Your task to perform on an android device: Go to privacy settings Image 0: 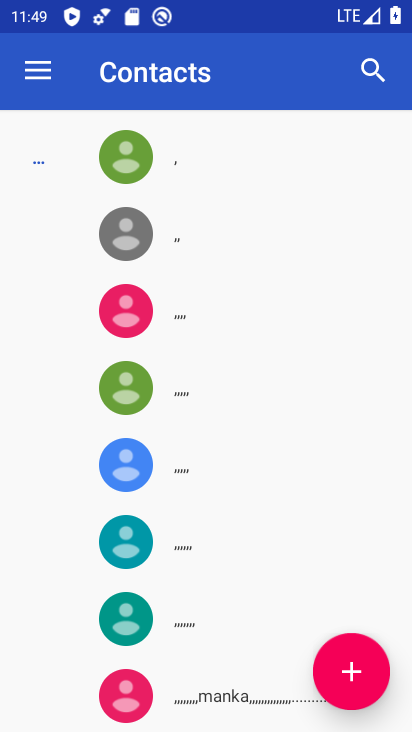
Step 0: drag from (217, 632) to (269, 260)
Your task to perform on an android device: Go to privacy settings Image 1: 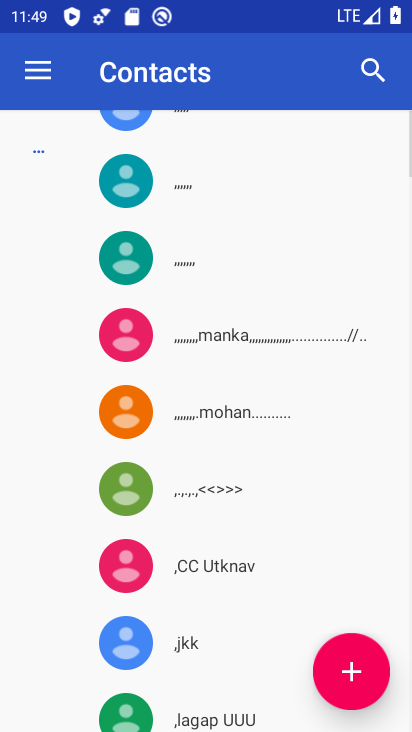
Step 1: press home button
Your task to perform on an android device: Go to privacy settings Image 2: 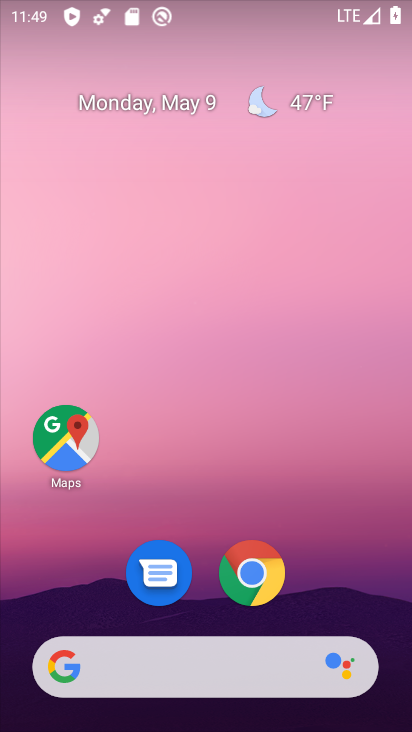
Step 2: click (253, 565)
Your task to perform on an android device: Go to privacy settings Image 3: 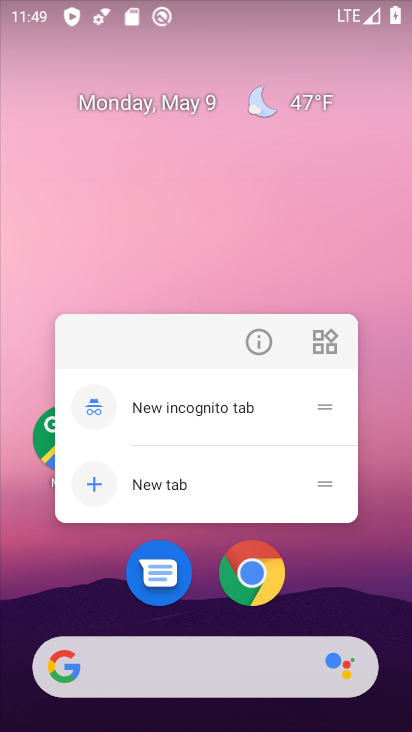
Step 3: click (272, 335)
Your task to perform on an android device: Go to privacy settings Image 4: 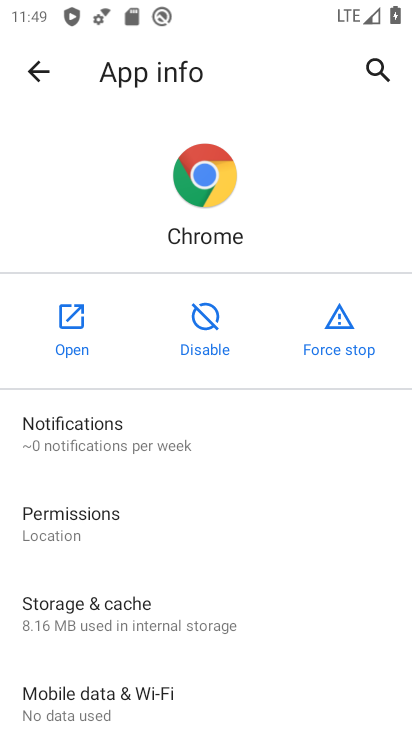
Step 4: click (56, 332)
Your task to perform on an android device: Go to privacy settings Image 5: 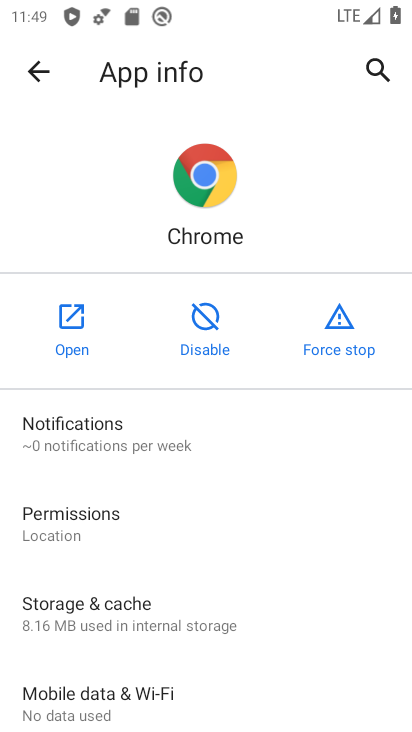
Step 5: click (56, 332)
Your task to perform on an android device: Go to privacy settings Image 6: 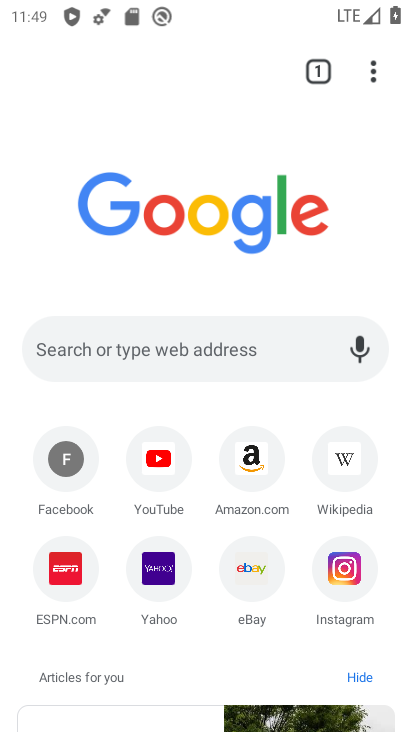
Step 6: click (374, 59)
Your task to perform on an android device: Go to privacy settings Image 7: 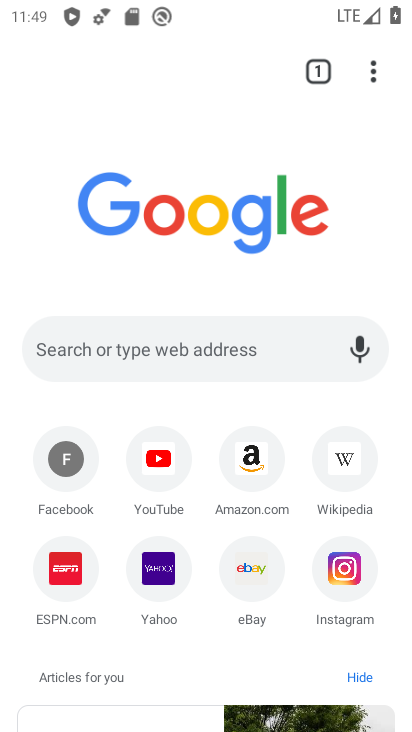
Step 7: click (374, 59)
Your task to perform on an android device: Go to privacy settings Image 8: 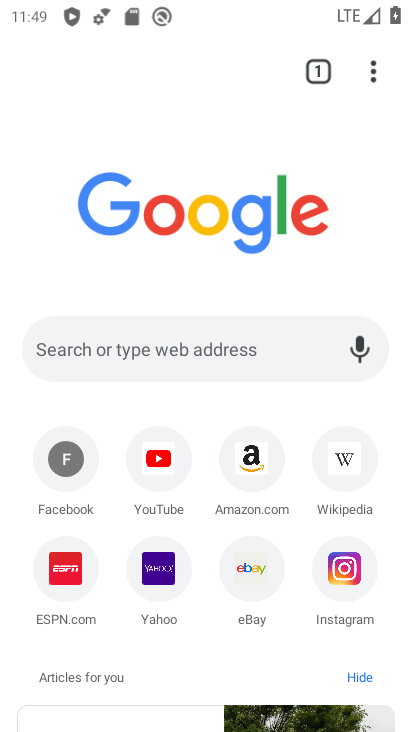
Step 8: click (381, 78)
Your task to perform on an android device: Go to privacy settings Image 9: 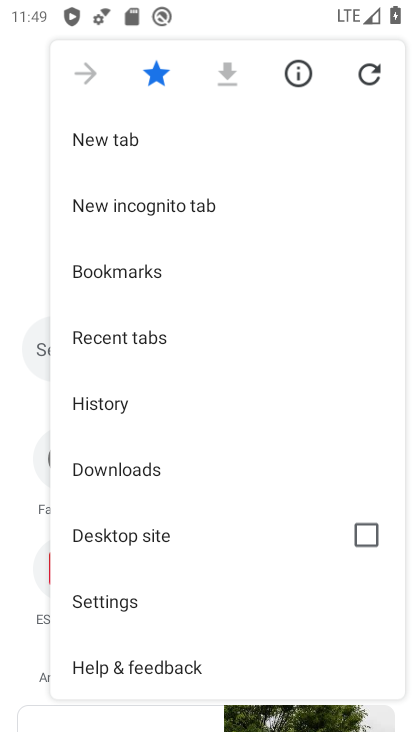
Step 9: click (133, 604)
Your task to perform on an android device: Go to privacy settings Image 10: 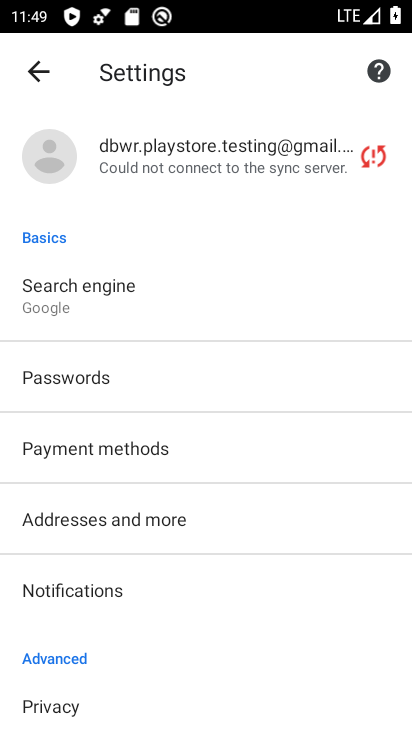
Step 10: drag from (172, 687) to (247, 272)
Your task to perform on an android device: Go to privacy settings Image 11: 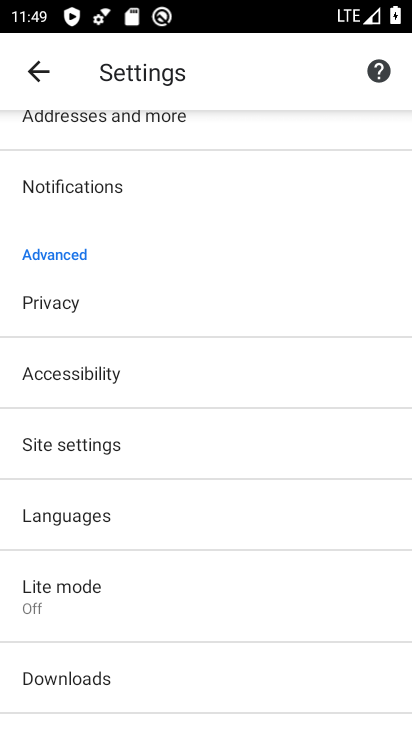
Step 11: click (125, 308)
Your task to perform on an android device: Go to privacy settings Image 12: 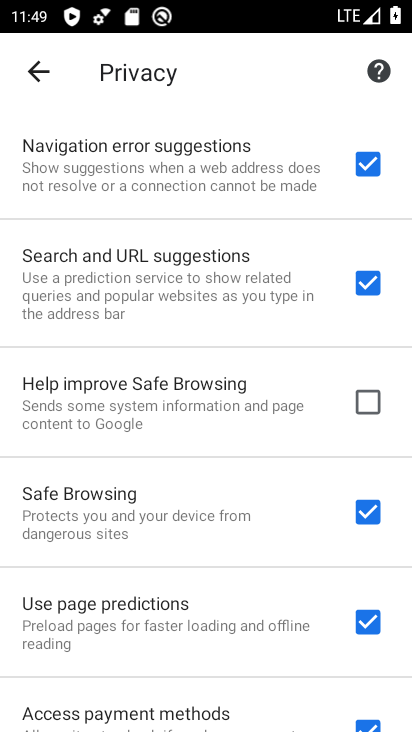
Step 12: task complete